Your task to perform on an android device: What's on my calendar today? Image 0: 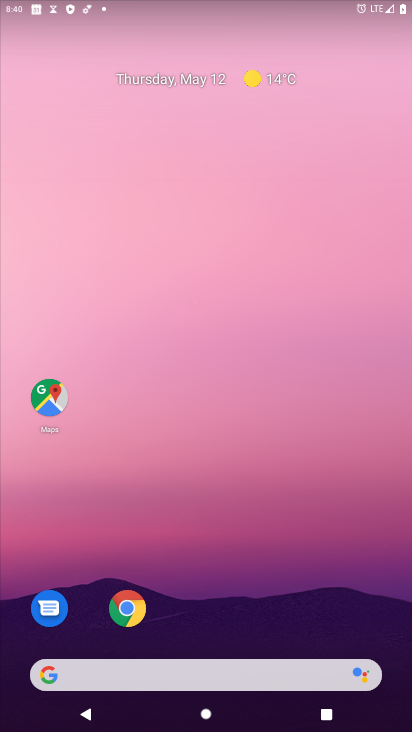
Step 0: drag from (199, 624) to (247, 301)
Your task to perform on an android device: What's on my calendar today? Image 1: 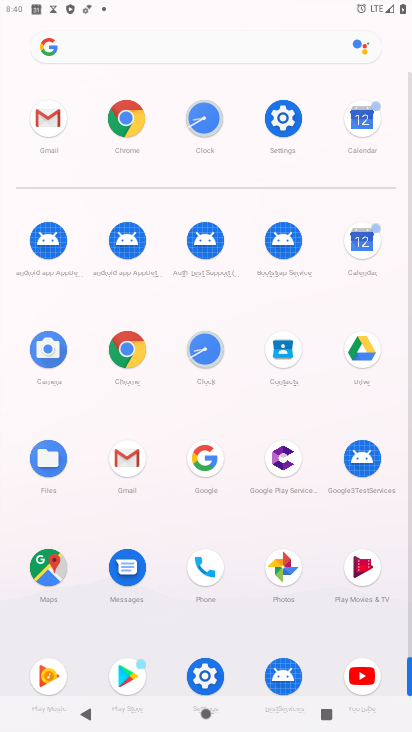
Step 1: click (369, 120)
Your task to perform on an android device: What's on my calendar today? Image 2: 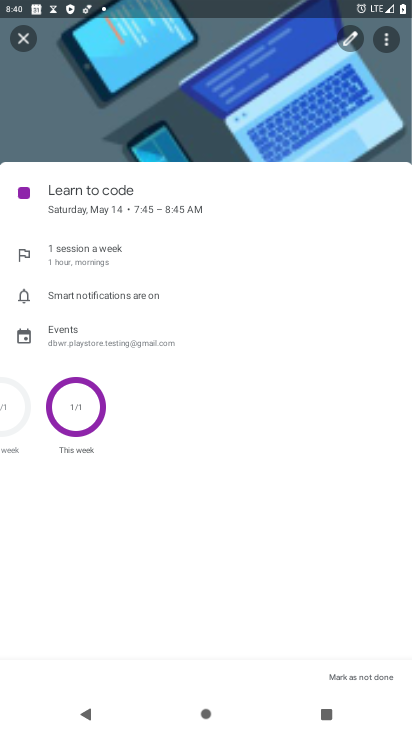
Step 2: click (15, 31)
Your task to perform on an android device: What's on my calendar today? Image 3: 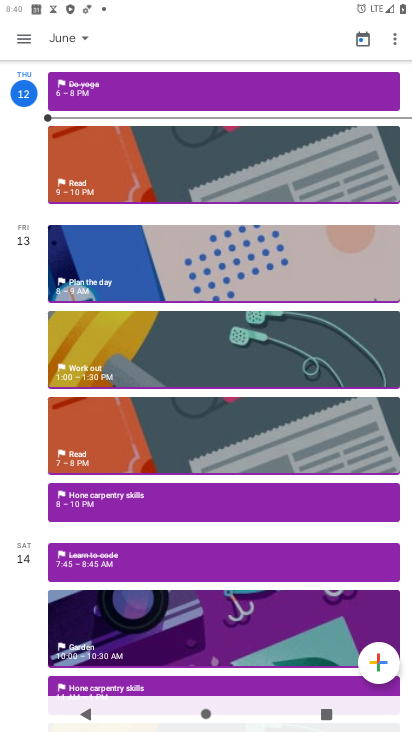
Step 3: click (105, 283)
Your task to perform on an android device: What's on my calendar today? Image 4: 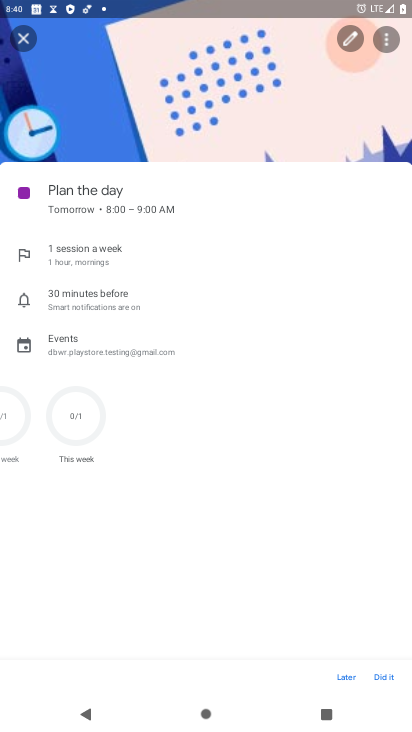
Step 4: task complete